Your task to perform on an android device: Go to Android settings Image 0: 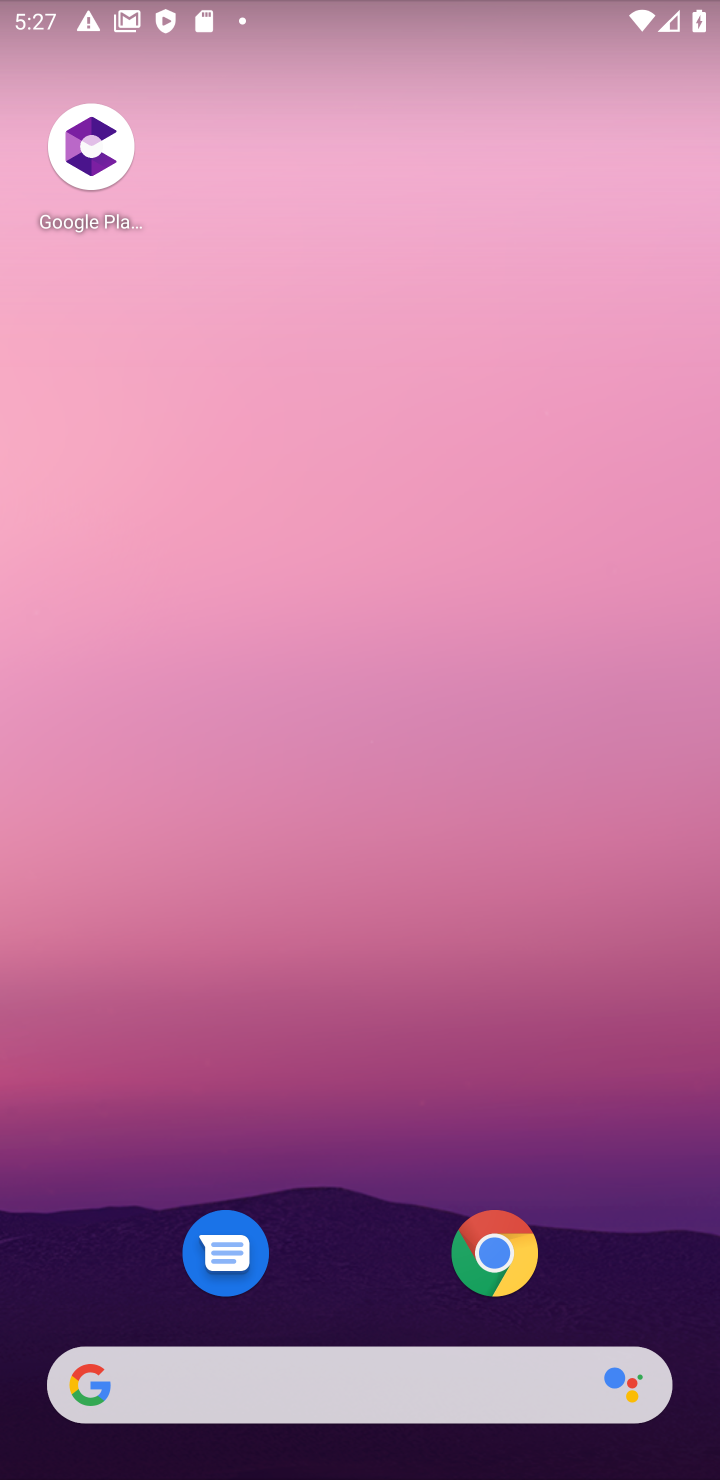
Step 0: drag from (306, 670) to (366, 53)
Your task to perform on an android device: Go to Android settings Image 1: 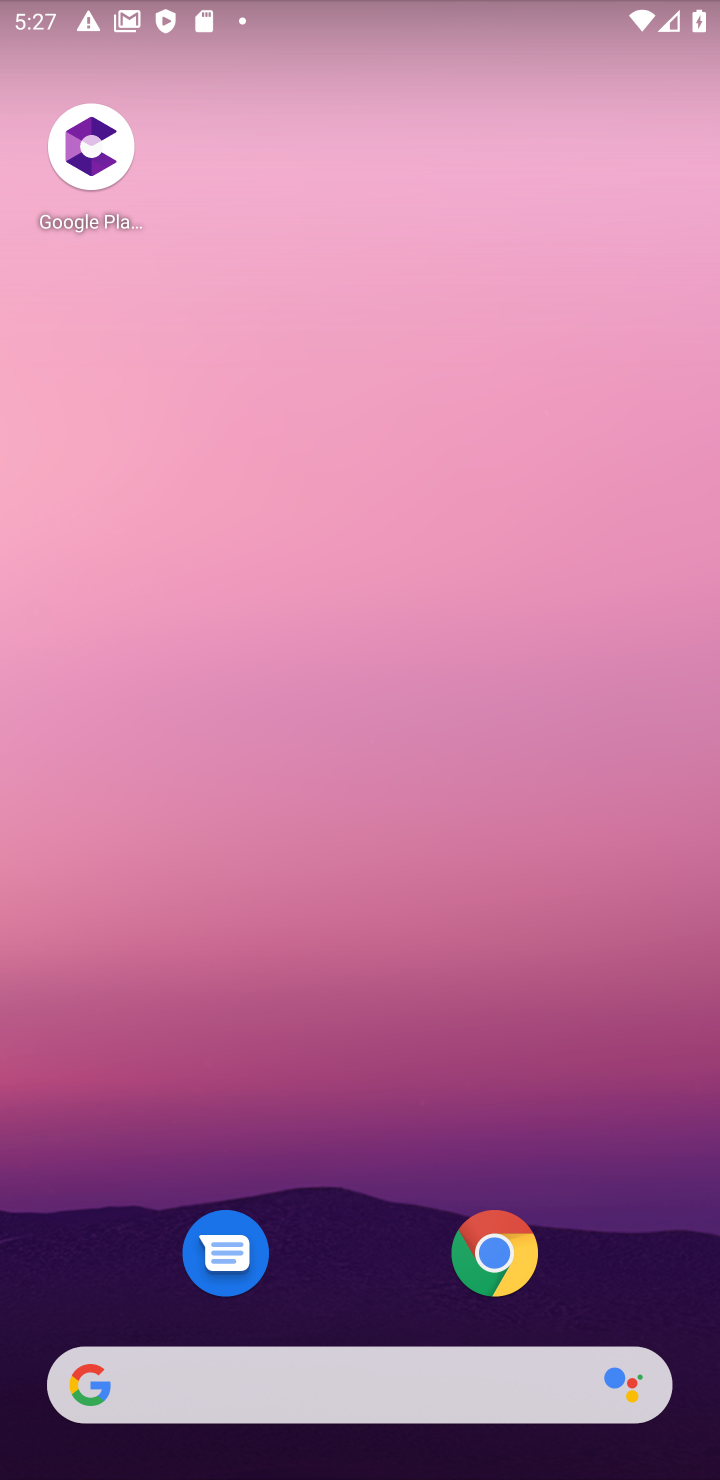
Step 1: drag from (319, 1065) to (319, 45)
Your task to perform on an android device: Go to Android settings Image 2: 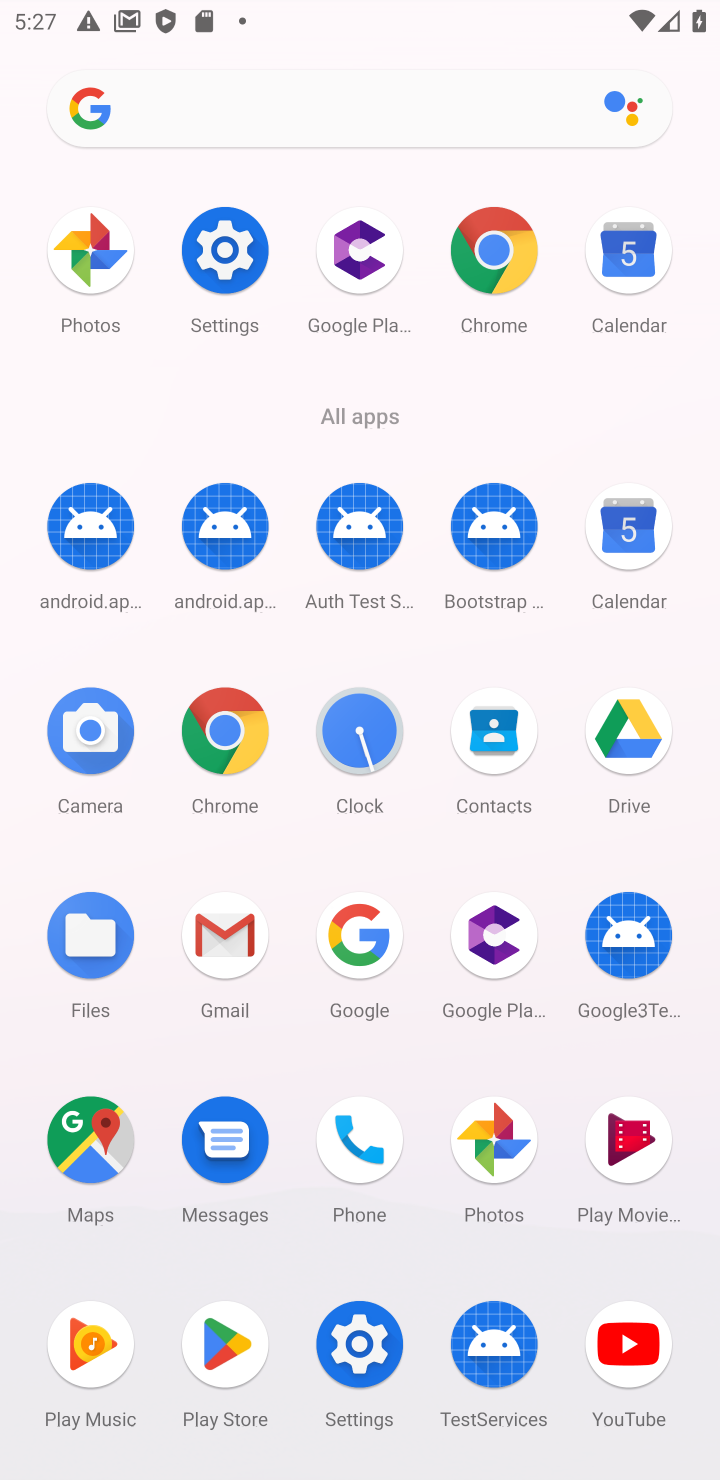
Step 2: click (245, 229)
Your task to perform on an android device: Go to Android settings Image 3: 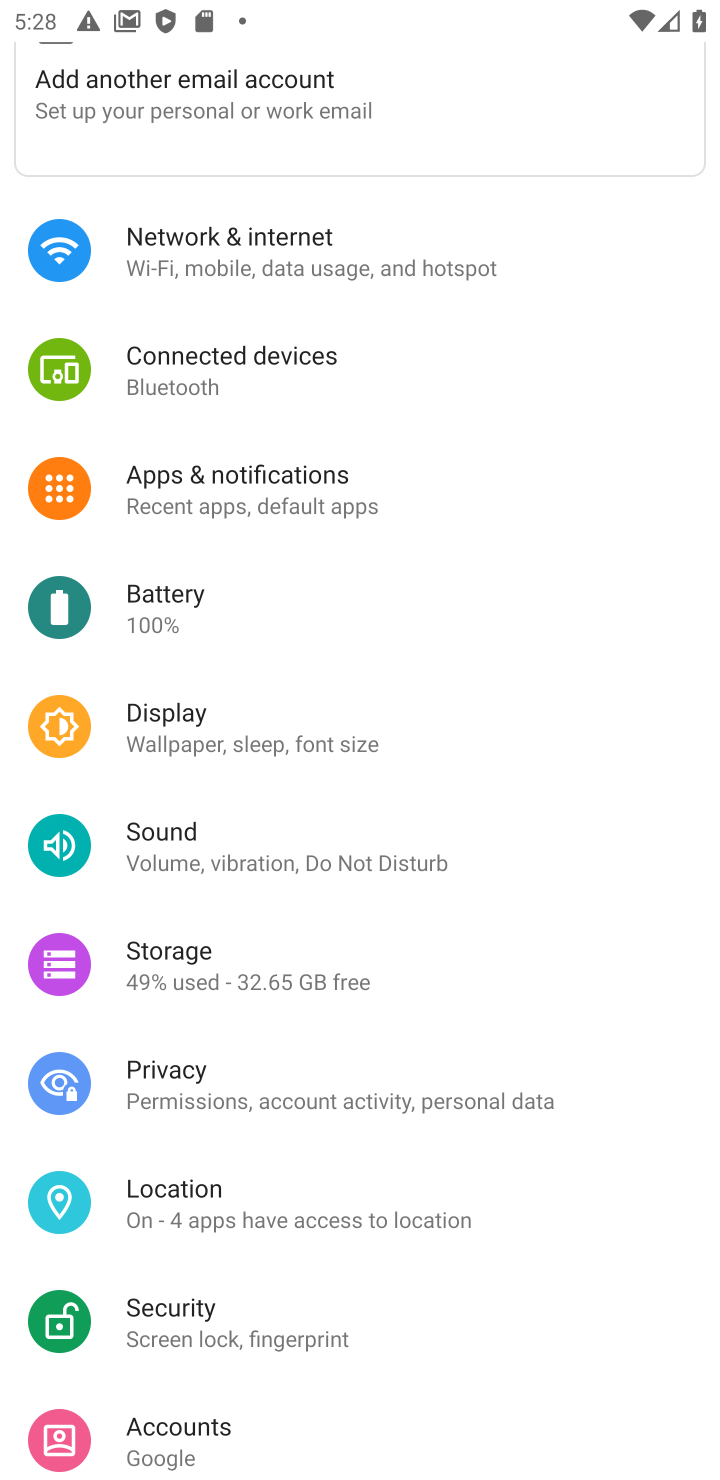
Step 3: drag from (409, 1310) to (358, 677)
Your task to perform on an android device: Go to Android settings Image 4: 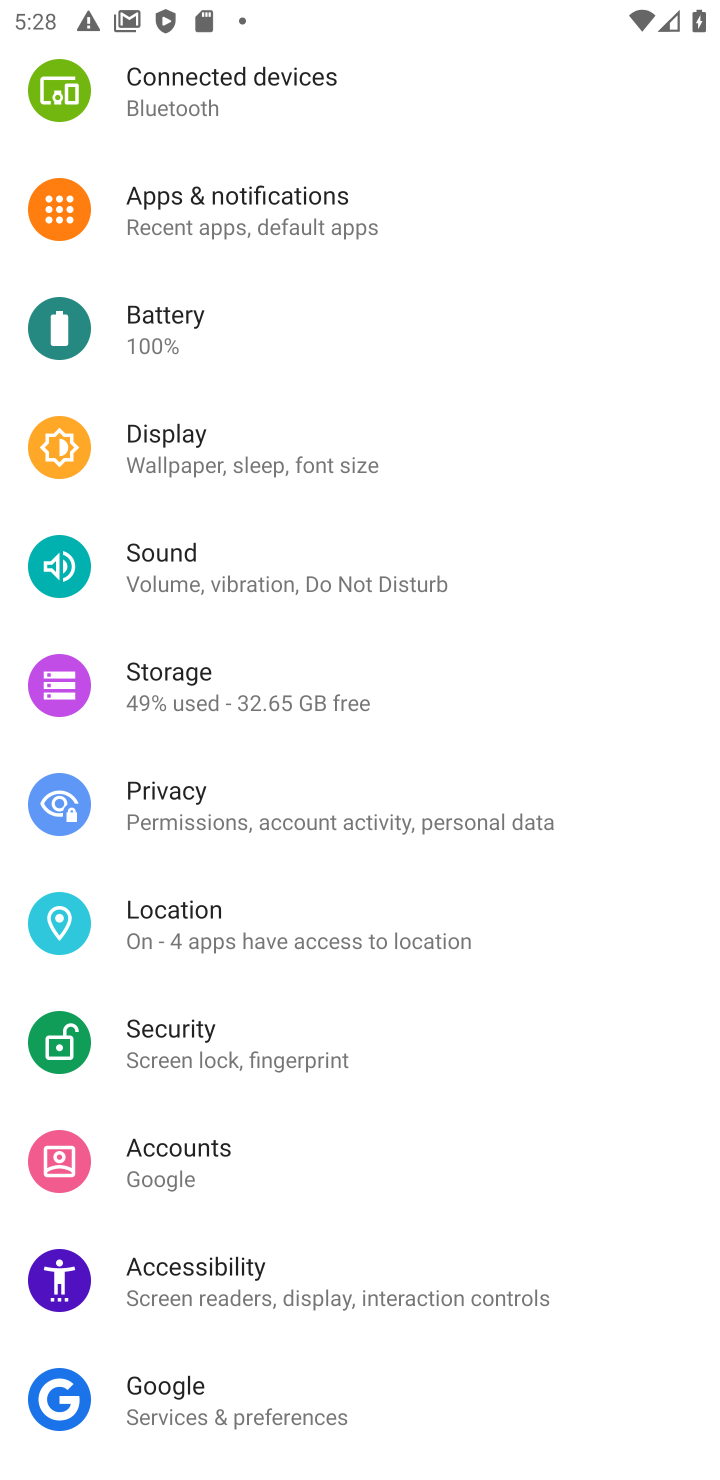
Step 4: drag from (359, 1267) to (355, 466)
Your task to perform on an android device: Go to Android settings Image 5: 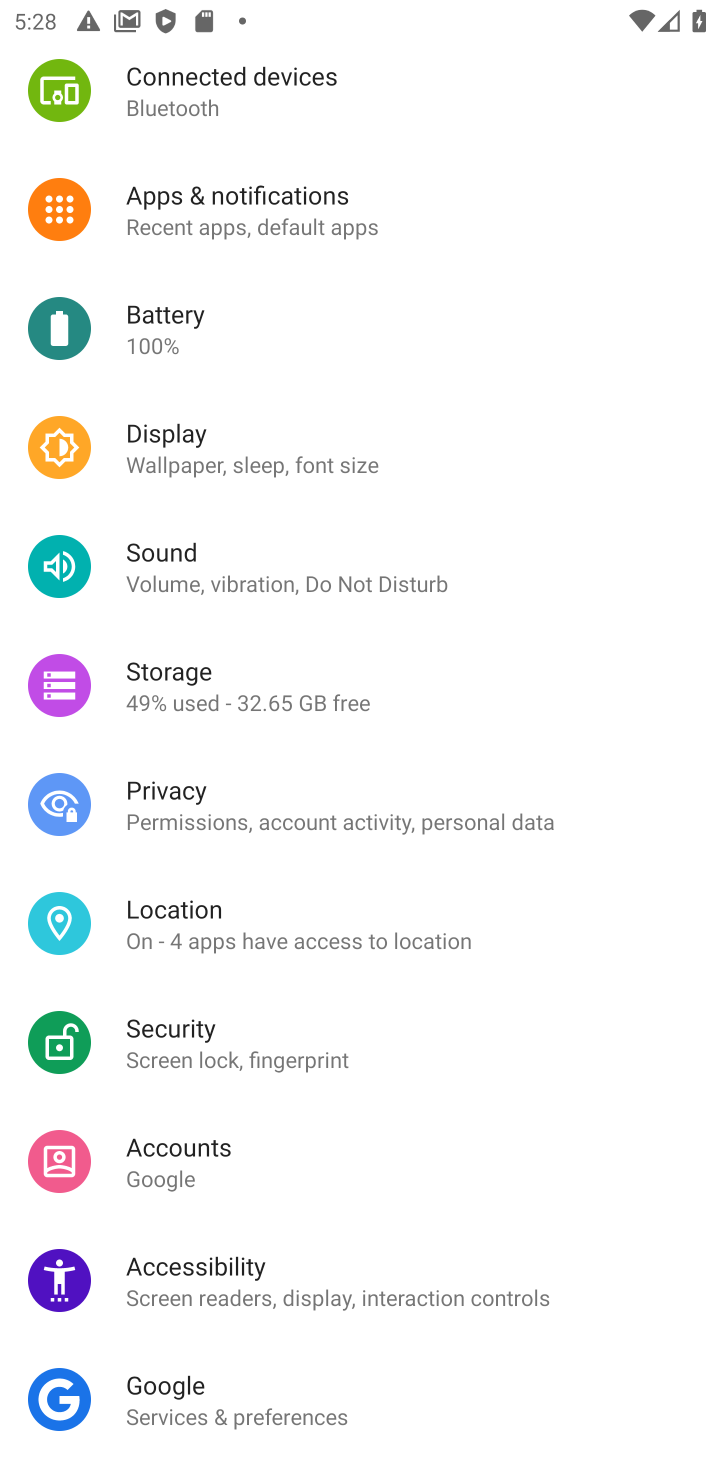
Step 5: drag from (292, 1295) to (265, 627)
Your task to perform on an android device: Go to Android settings Image 6: 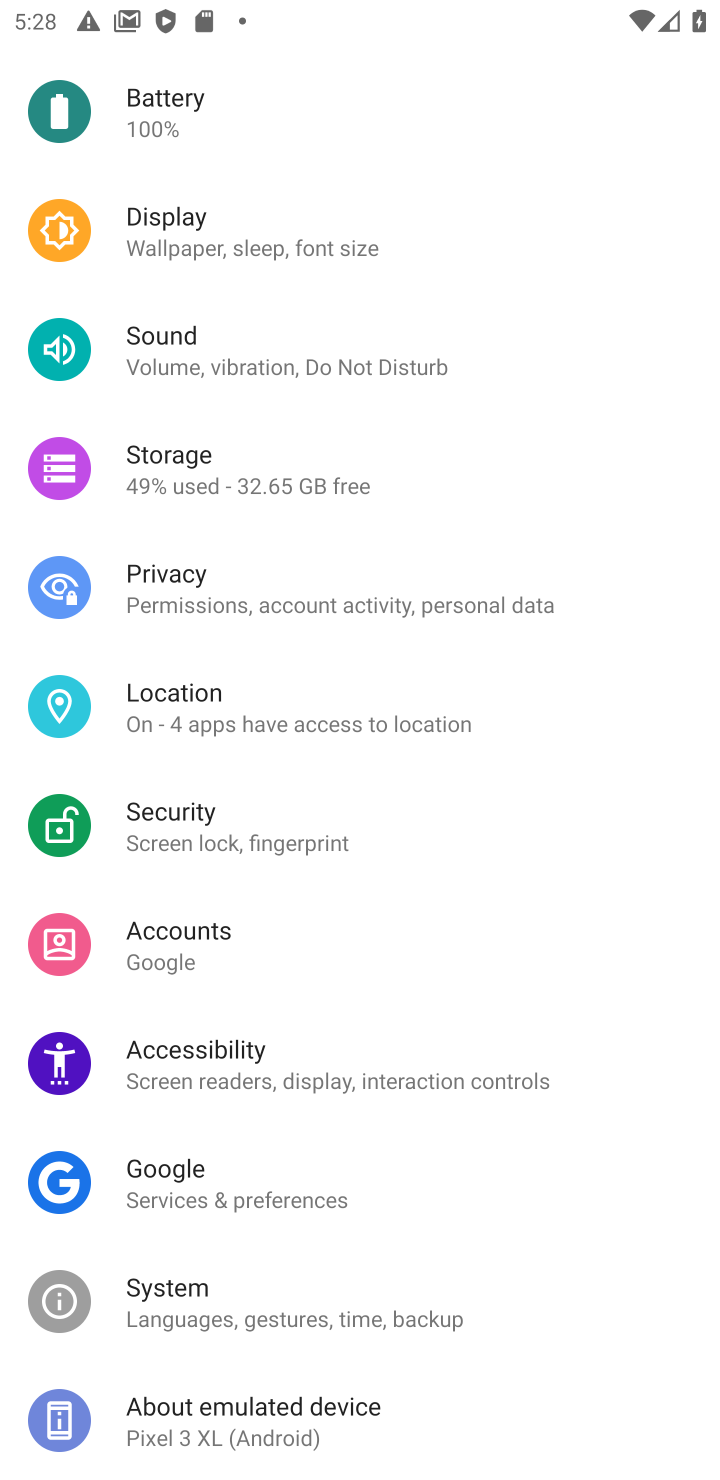
Step 6: click (372, 1322)
Your task to perform on an android device: Go to Android settings Image 7: 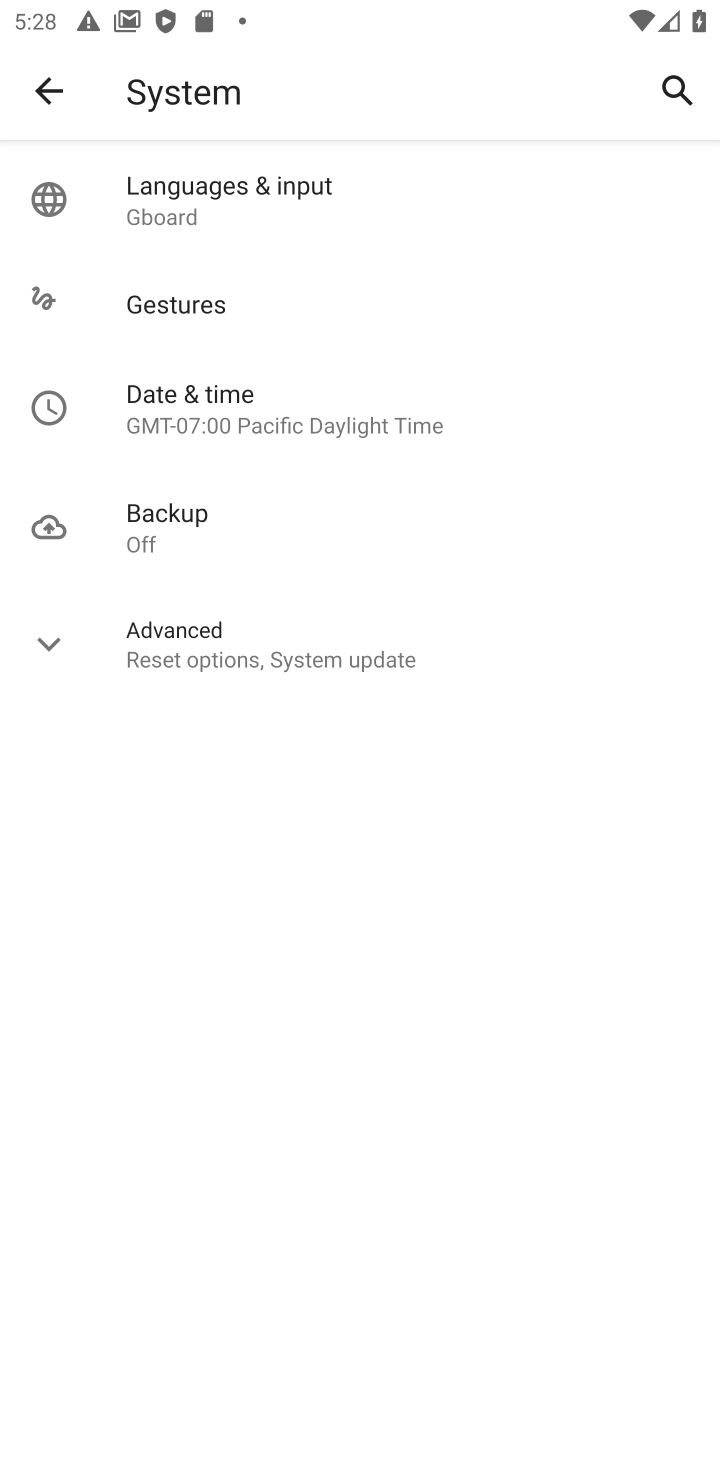
Step 7: task complete